Your task to perform on an android device: open app "Chime – Mobile Banking" (install if not already installed), go to login, and select forgot password Image 0: 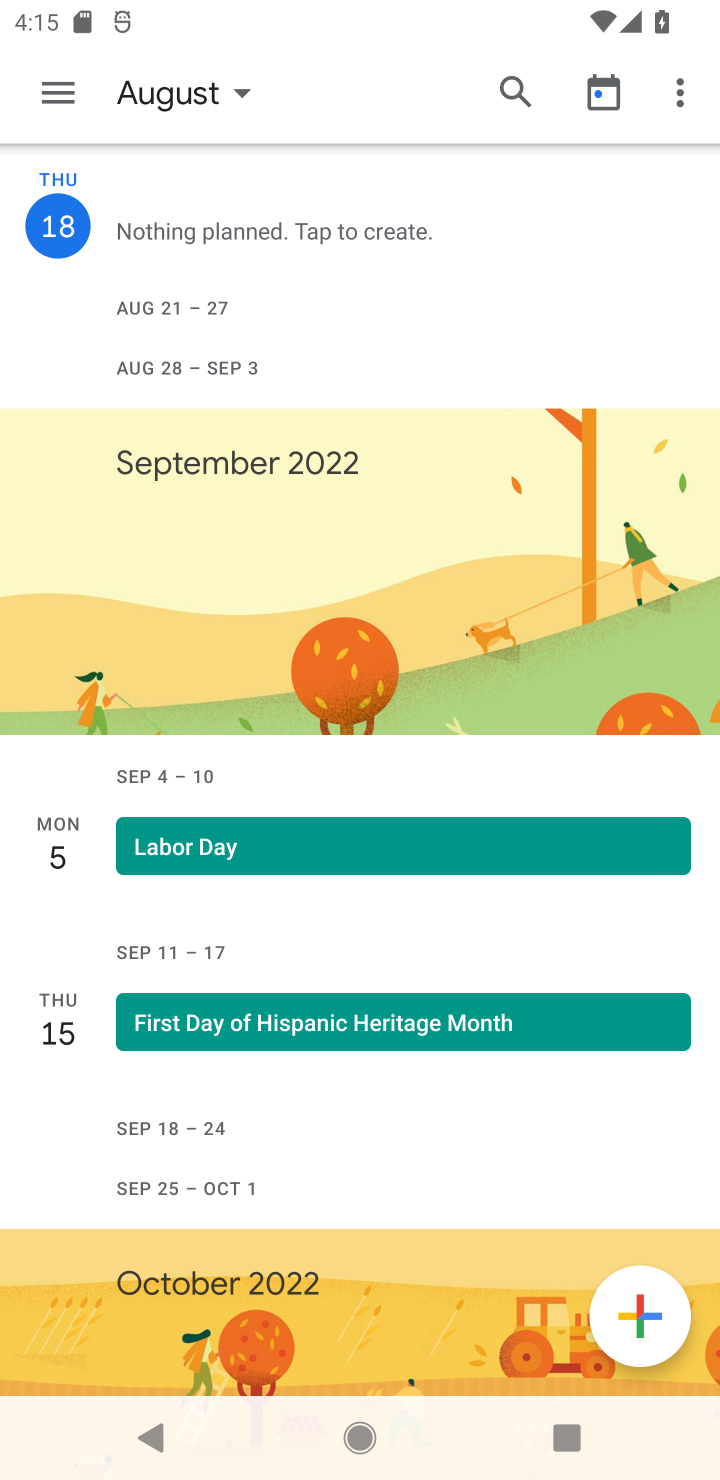
Step 0: press home button
Your task to perform on an android device: open app "Chime – Mobile Banking" (install if not already installed), go to login, and select forgot password Image 1: 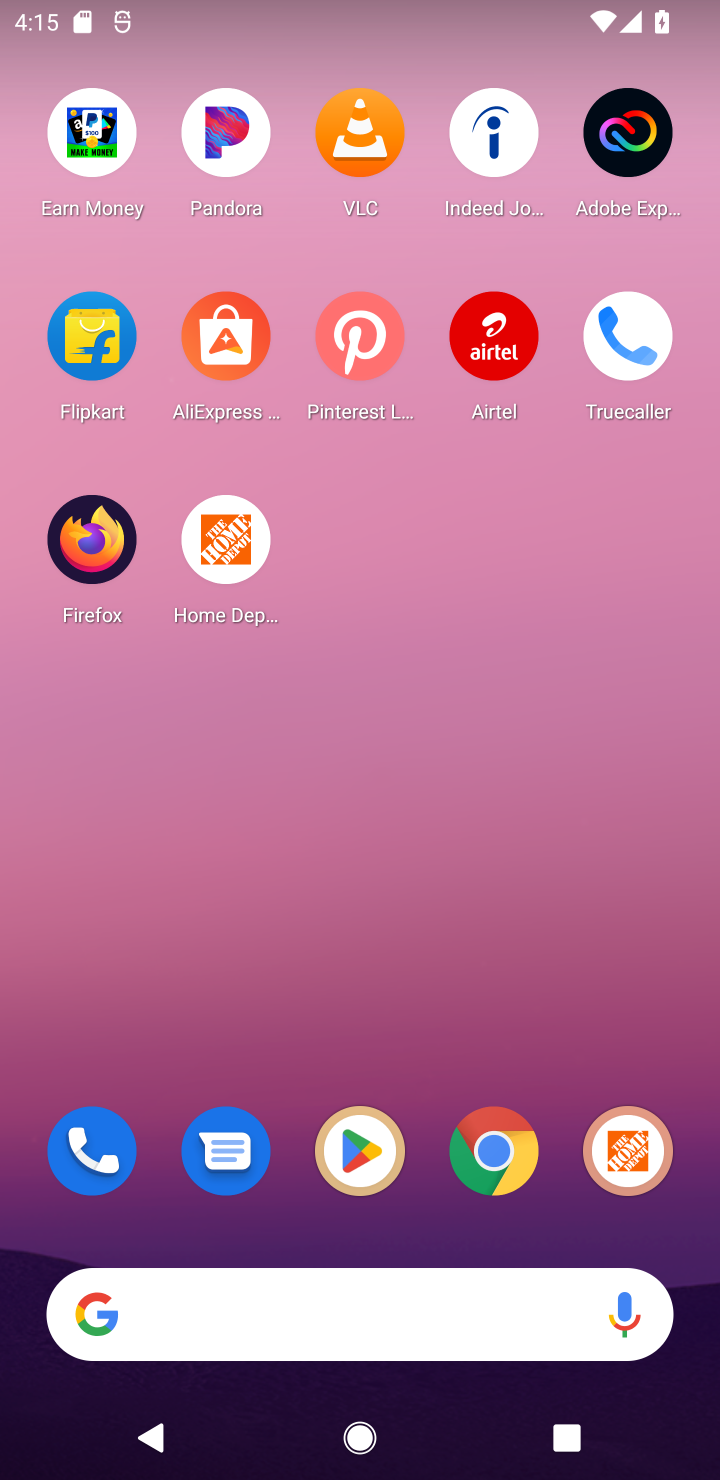
Step 1: click (362, 1193)
Your task to perform on an android device: open app "Chime – Mobile Banking" (install if not already installed), go to login, and select forgot password Image 2: 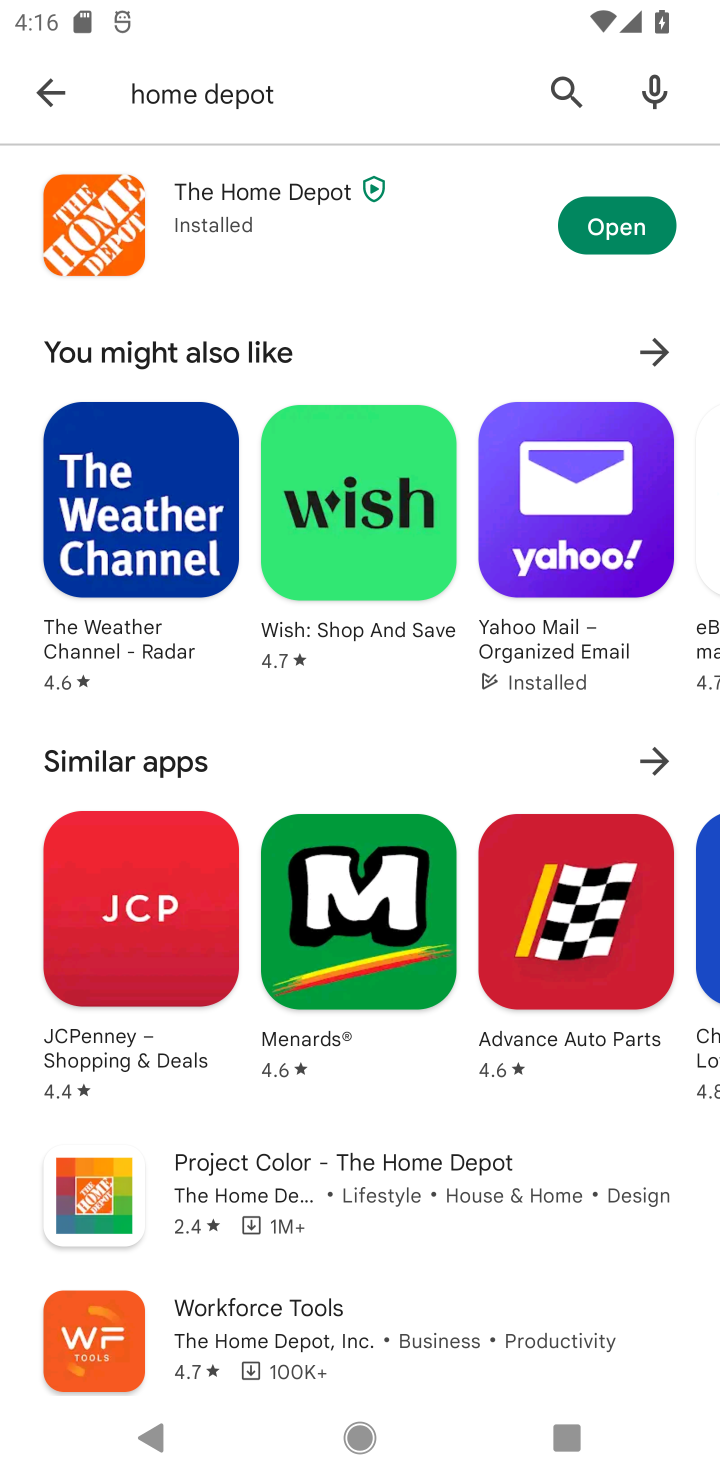
Step 2: click (545, 84)
Your task to perform on an android device: open app "Chime – Mobile Banking" (install if not already installed), go to login, and select forgot password Image 3: 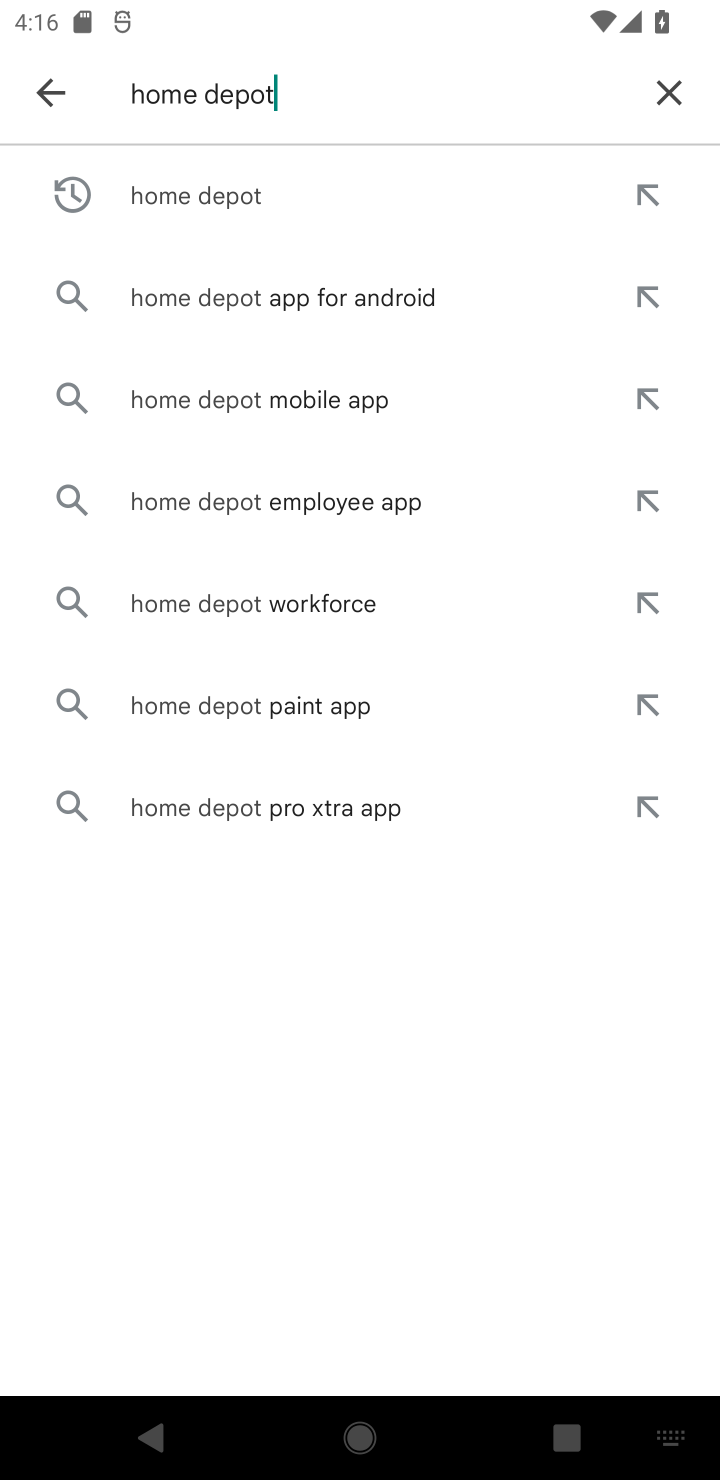
Step 3: click (688, 127)
Your task to perform on an android device: open app "Chime – Mobile Banking" (install if not already installed), go to login, and select forgot password Image 4: 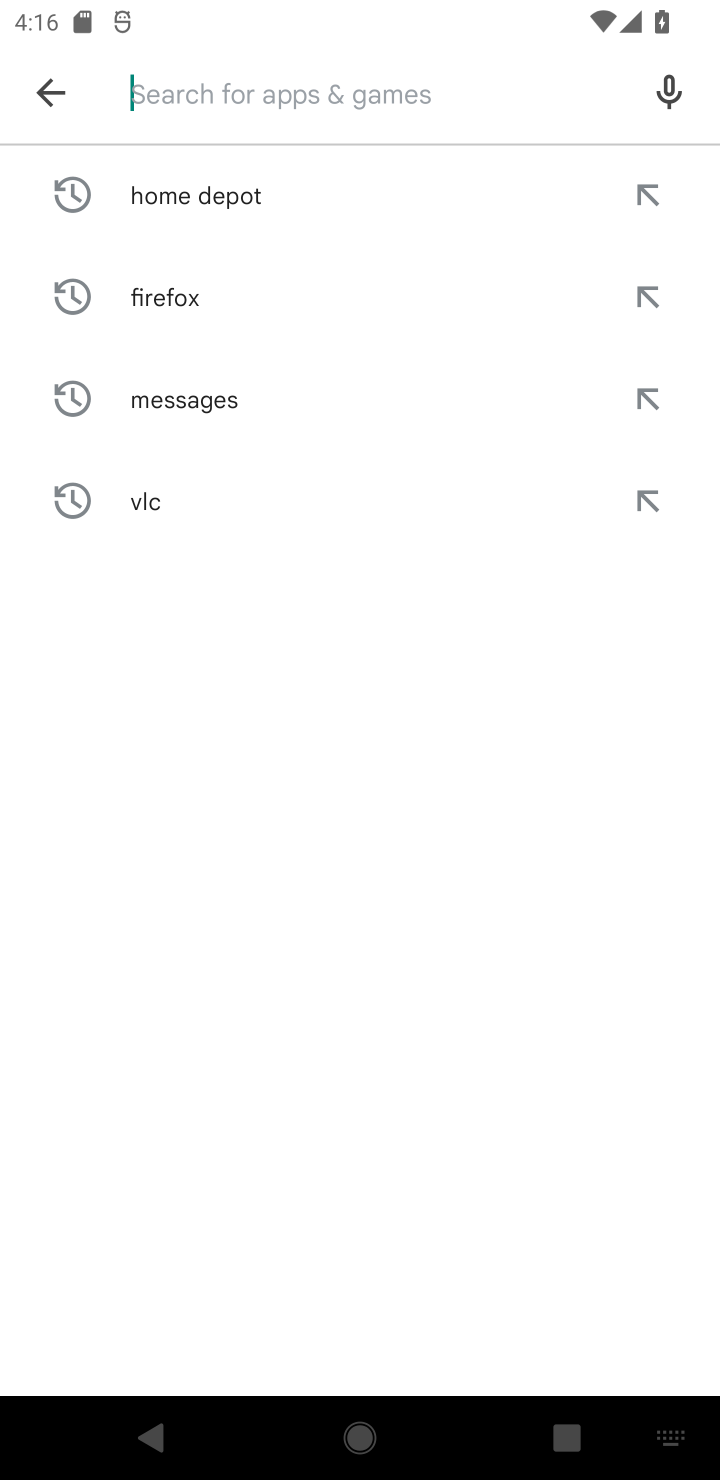
Step 4: type "chime"
Your task to perform on an android device: open app "Chime – Mobile Banking" (install if not already installed), go to login, and select forgot password Image 5: 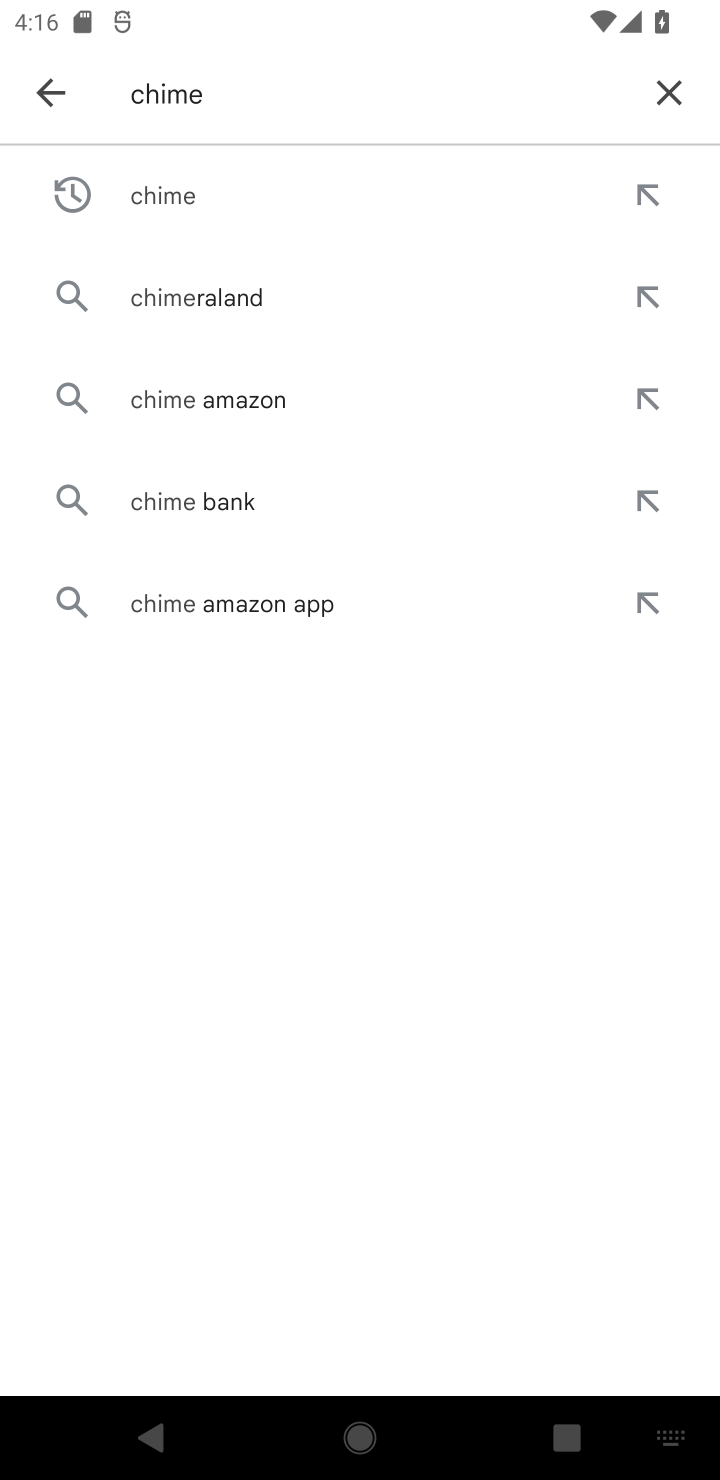
Step 5: click (244, 178)
Your task to perform on an android device: open app "Chime – Mobile Banking" (install if not already installed), go to login, and select forgot password Image 6: 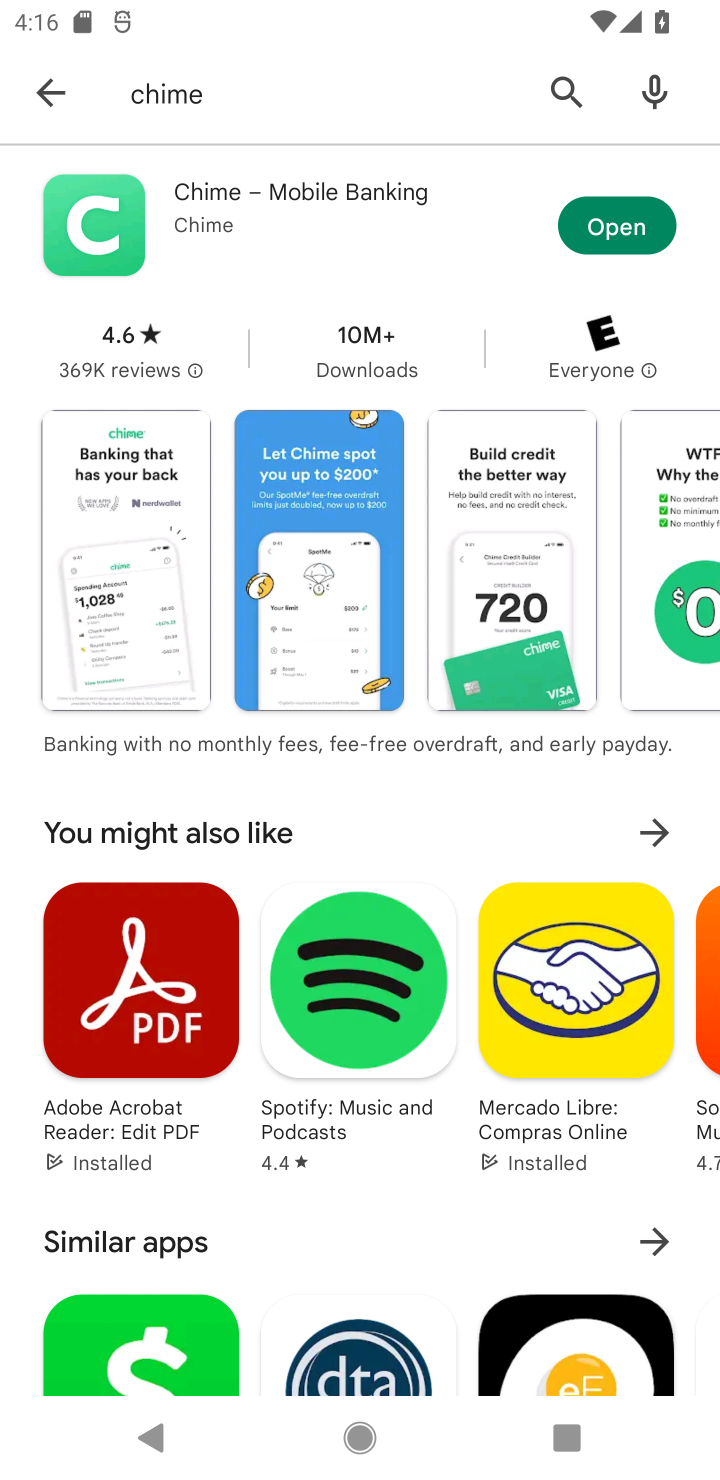
Step 6: click (584, 242)
Your task to perform on an android device: open app "Chime – Mobile Banking" (install if not already installed), go to login, and select forgot password Image 7: 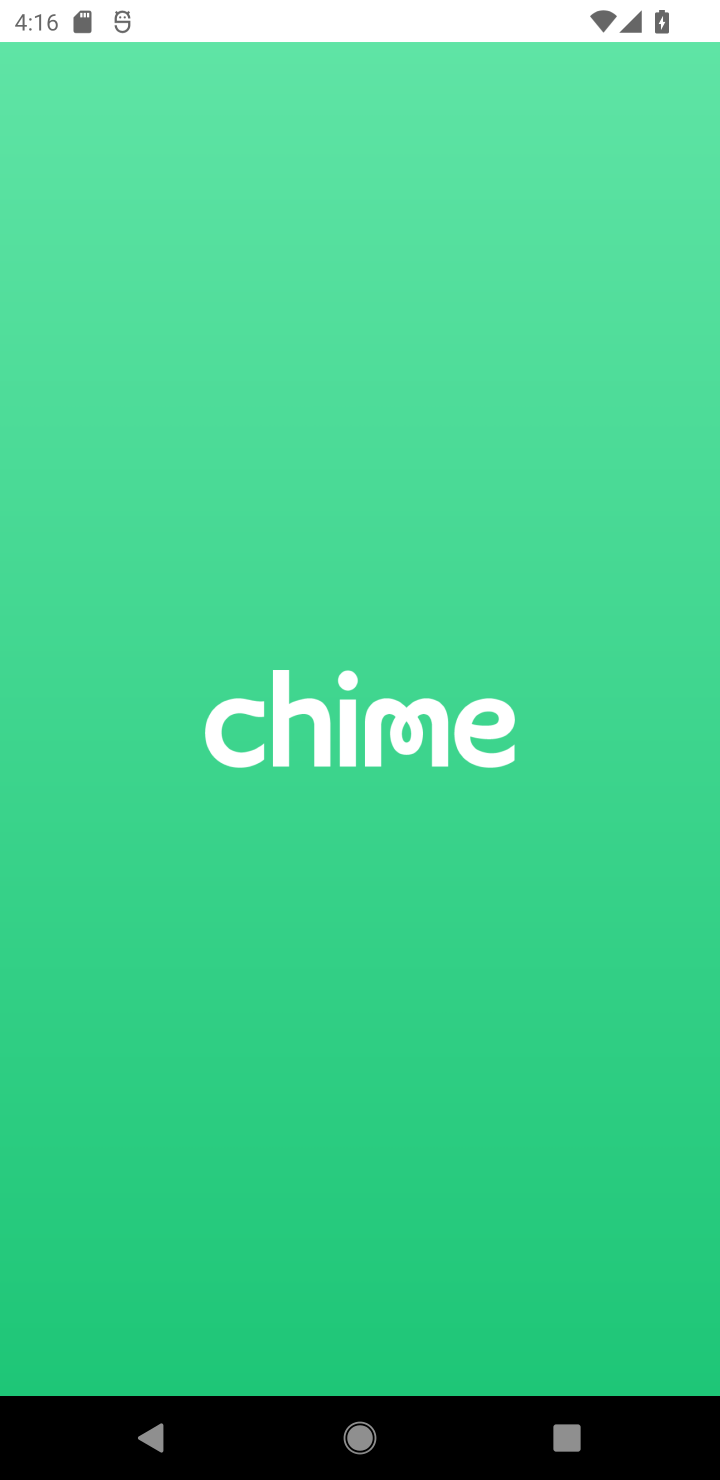
Step 7: task complete